Your task to perform on an android device: Search for hotels in San Francisco Image 0: 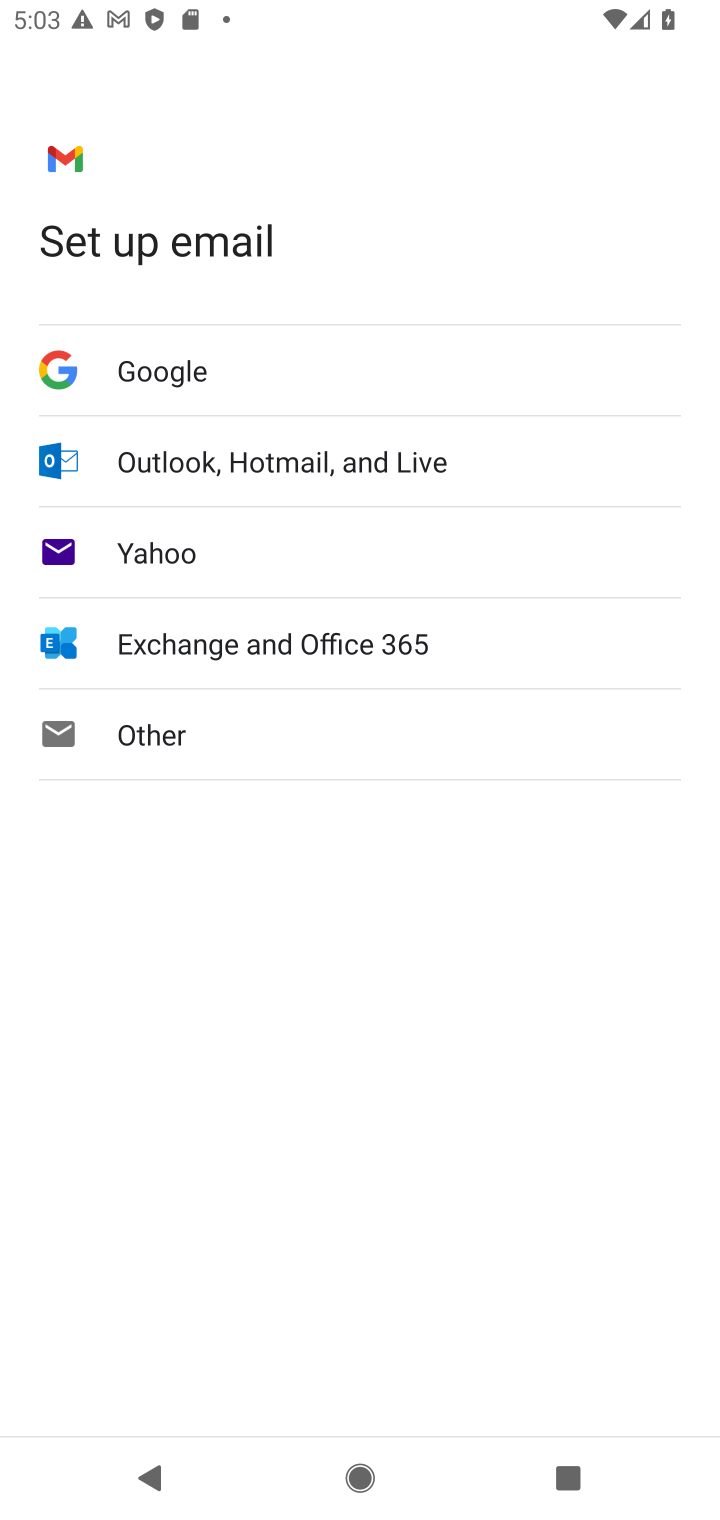
Step 0: press home button
Your task to perform on an android device: Search for hotels in San Francisco Image 1: 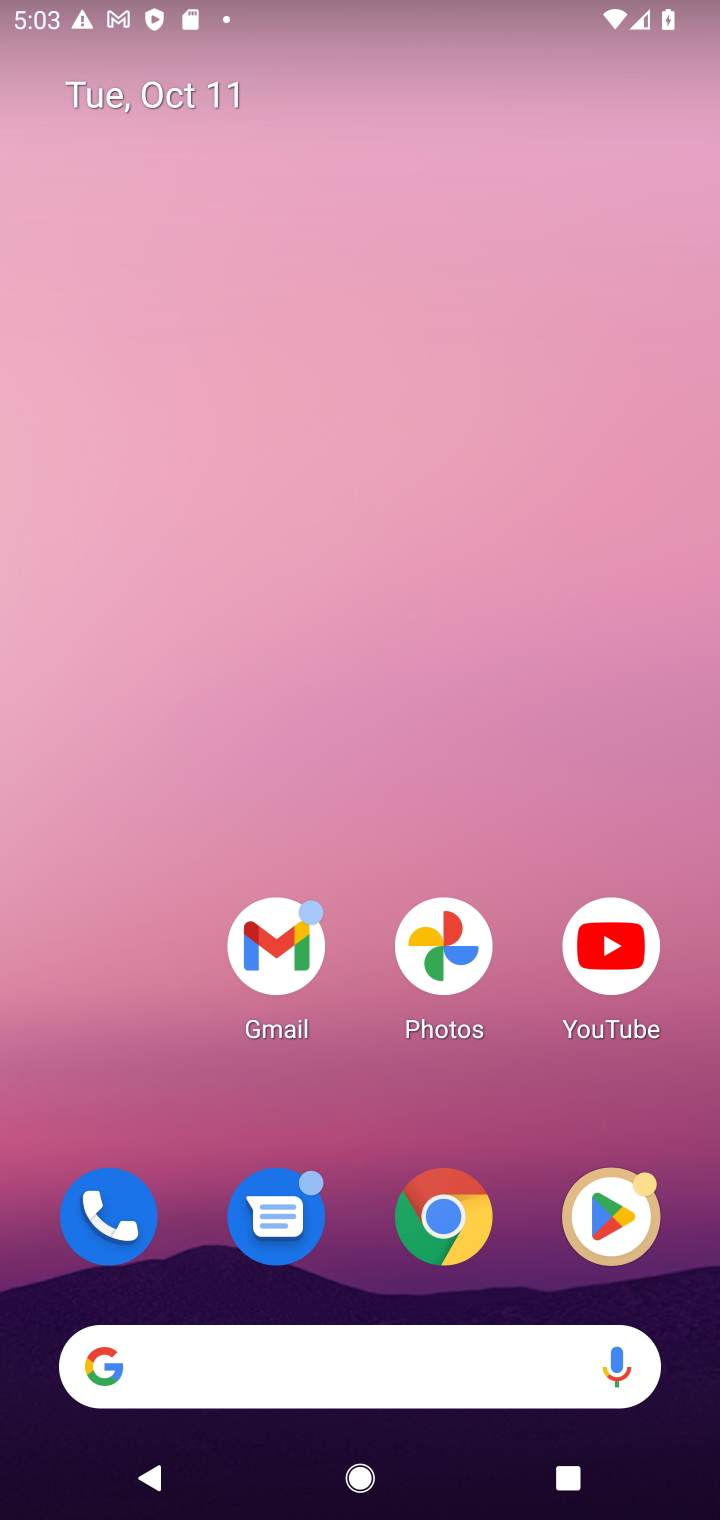
Step 1: click (441, 1214)
Your task to perform on an android device: Search for hotels in San Francisco Image 2: 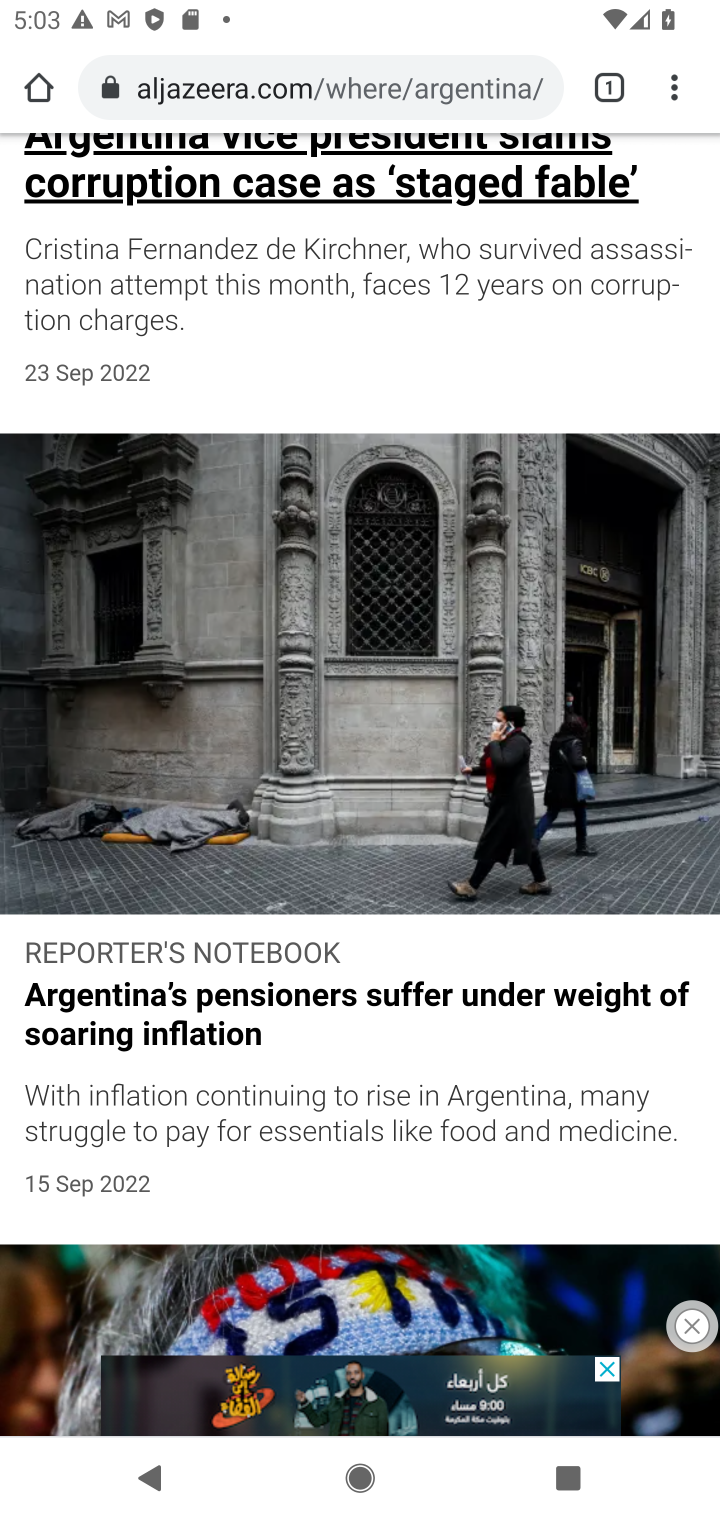
Step 2: click (350, 90)
Your task to perform on an android device: Search for hotels in San Francisco Image 3: 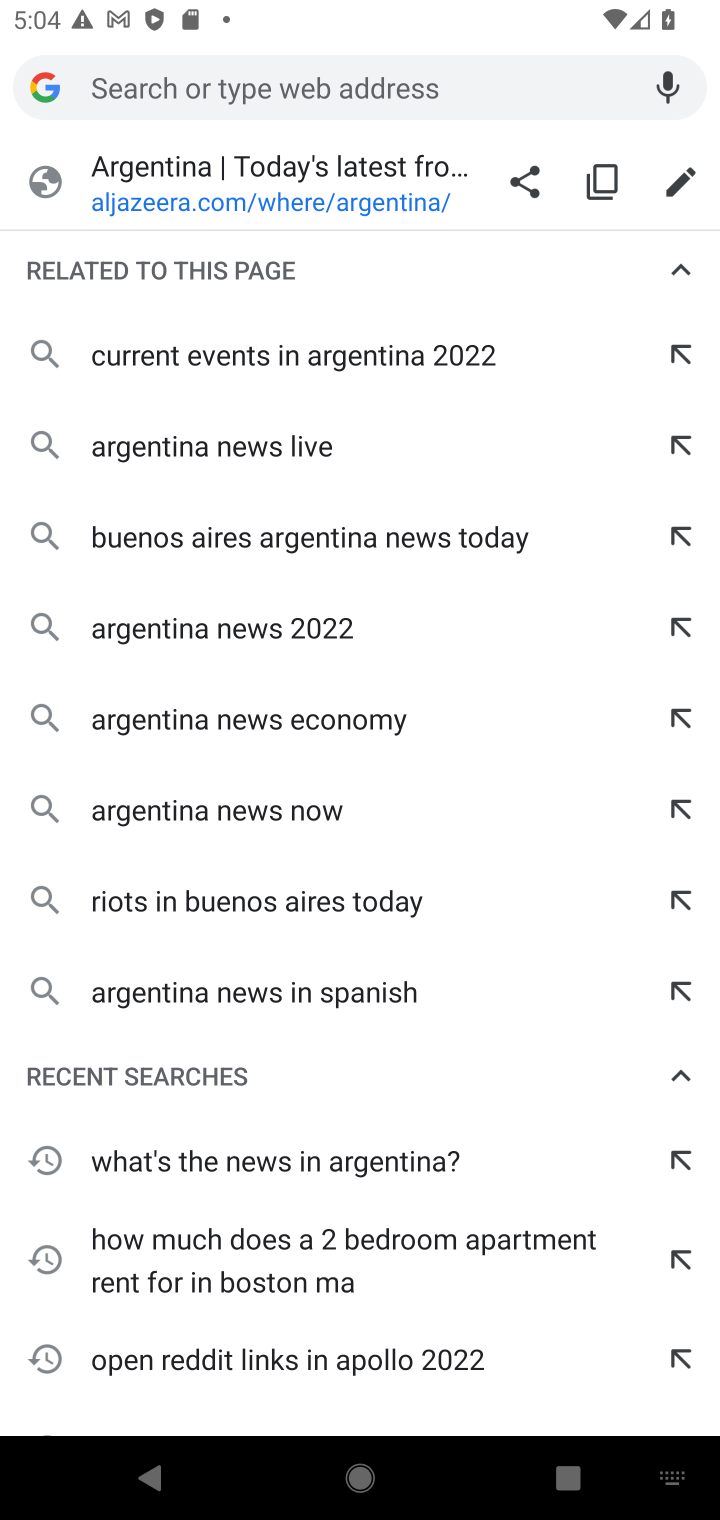
Step 3: type "Hotels in San Francisco"
Your task to perform on an android device: Search for hotels in San Francisco Image 4: 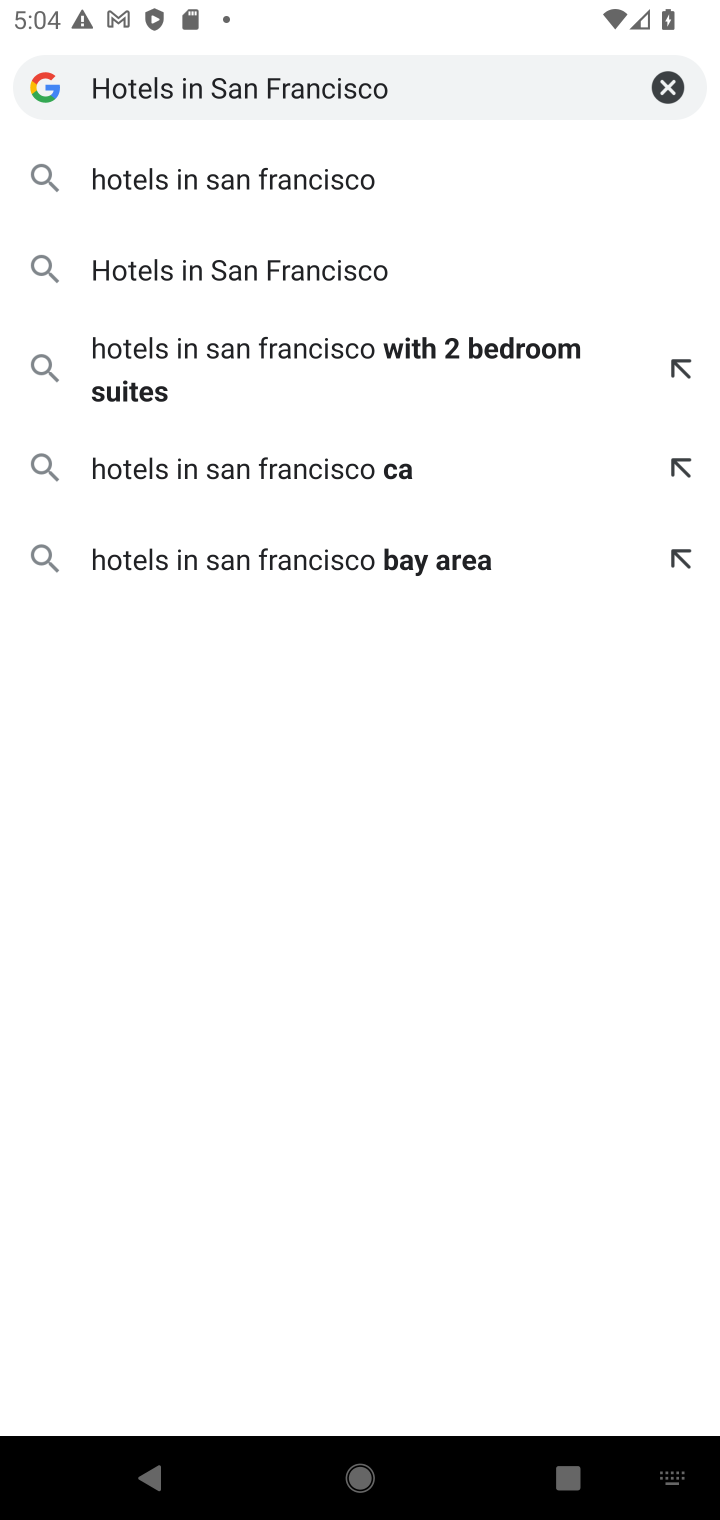
Step 4: click (253, 174)
Your task to perform on an android device: Search for hotels in San Francisco Image 5: 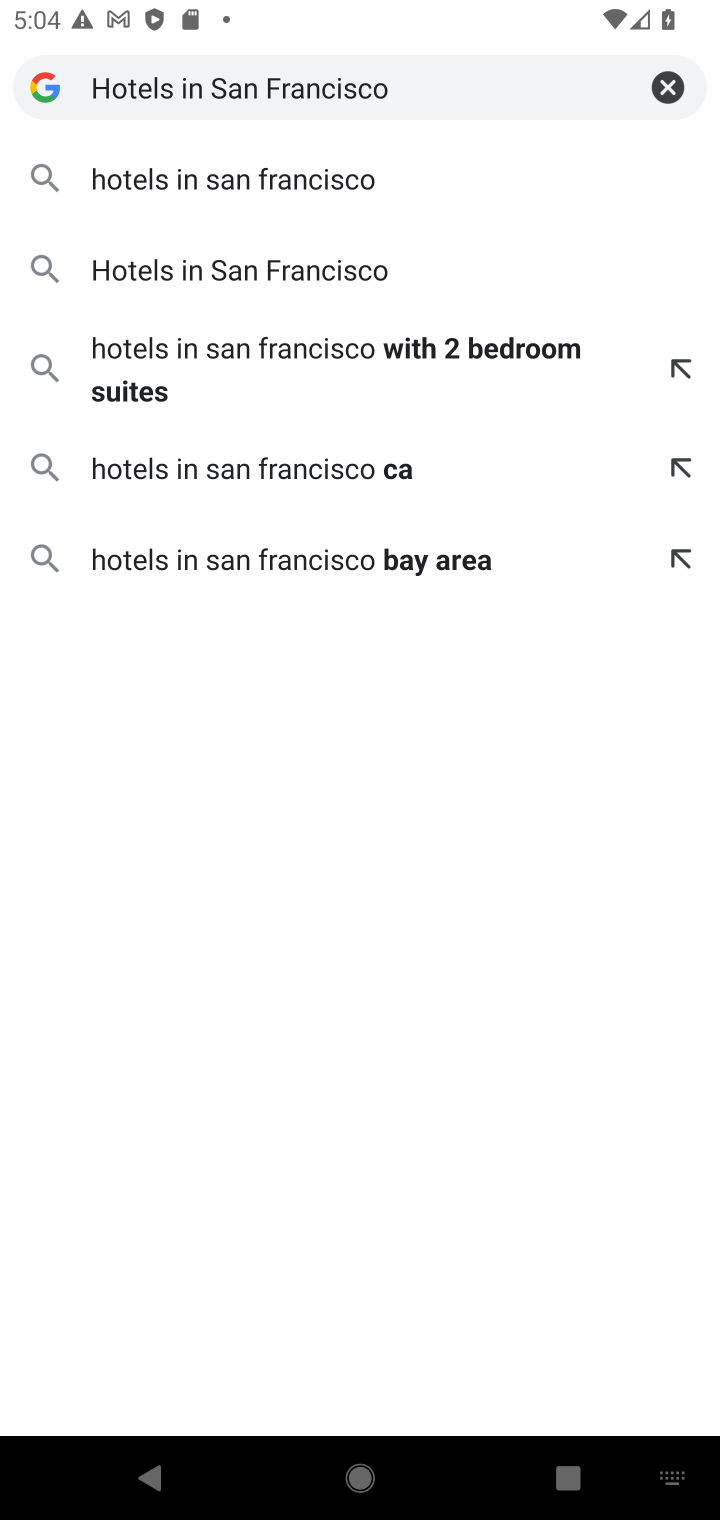
Step 5: click (356, 181)
Your task to perform on an android device: Search for hotels in San Francisco Image 6: 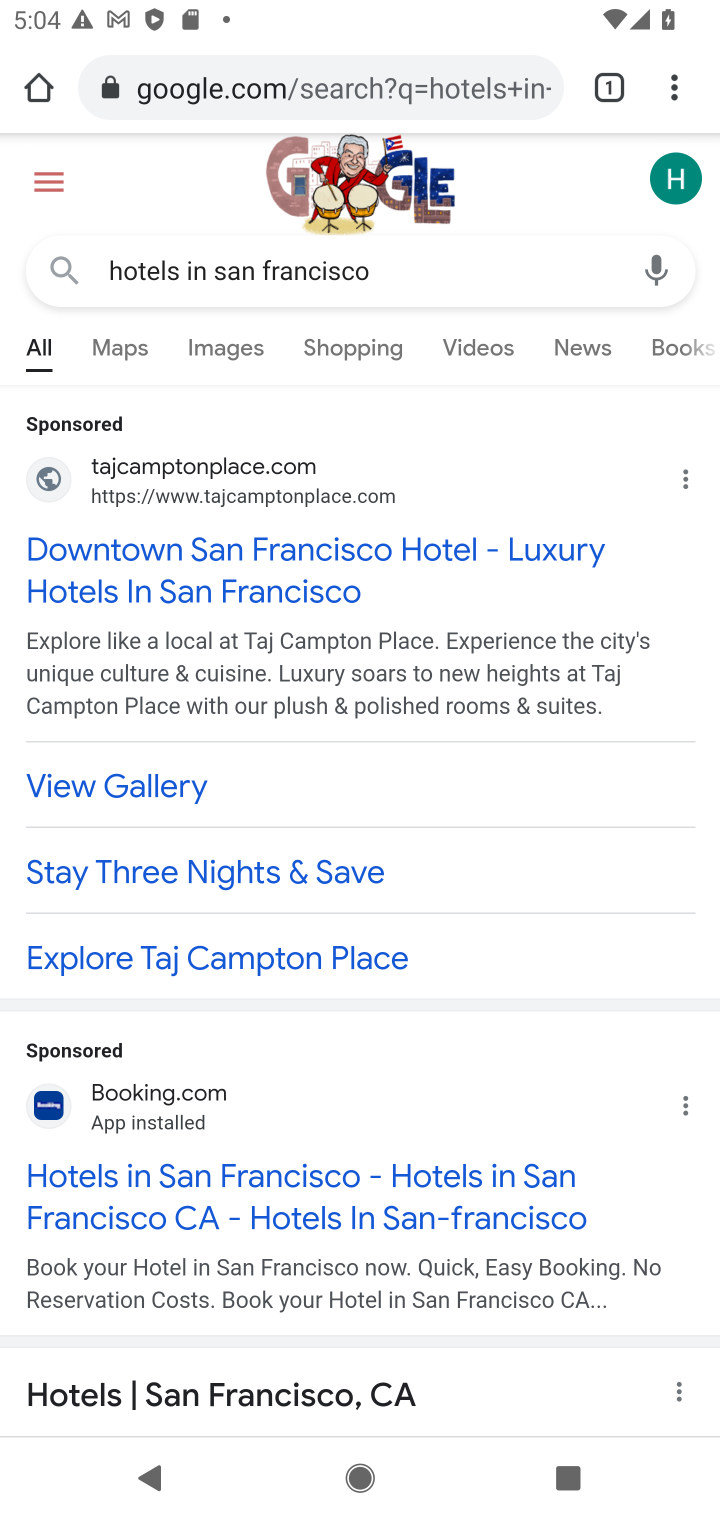
Step 6: drag from (444, 961) to (573, 690)
Your task to perform on an android device: Search for hotels in San Francisco Image 7: 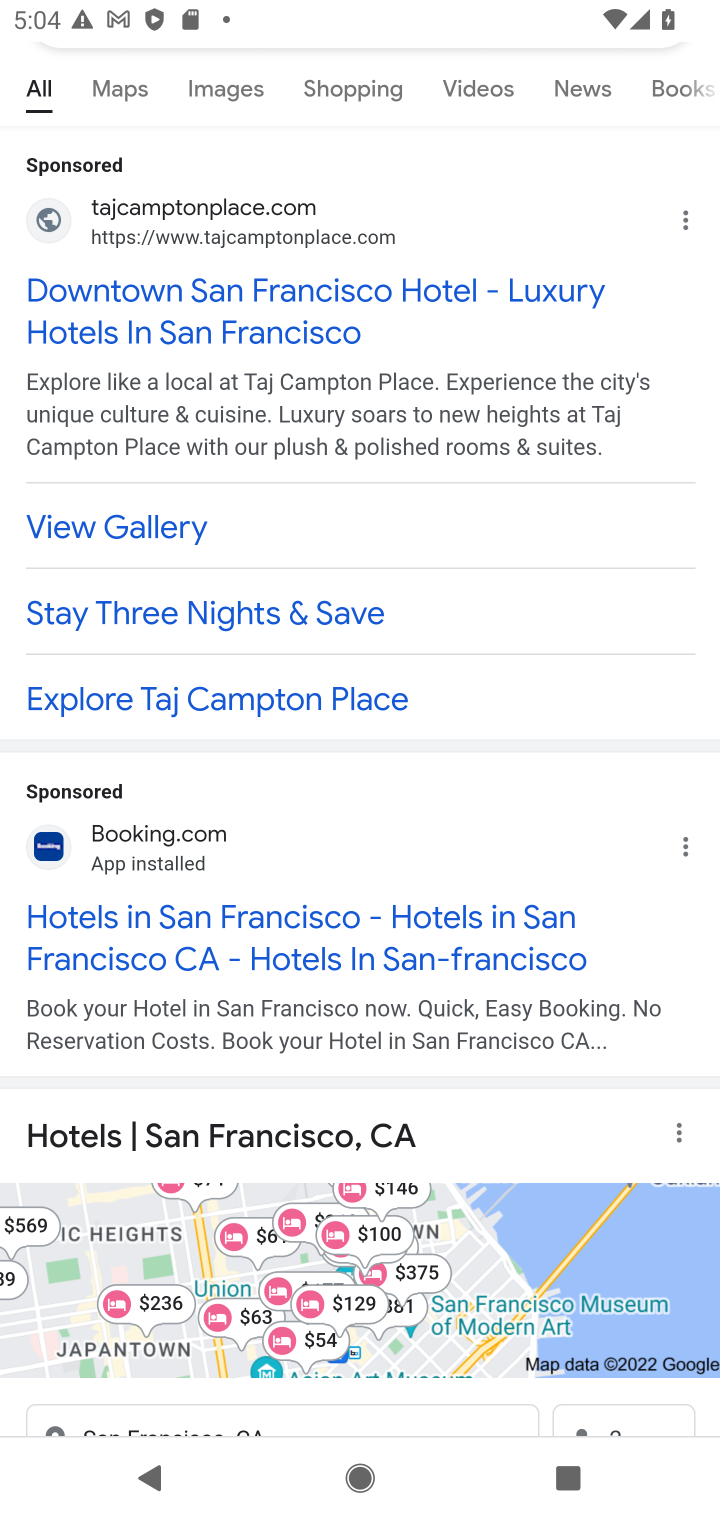
Step 7: drag from (375, 1223) to (383, 626)
Your task to perform on an android device: Search for hotels in San Francisco Image 8: 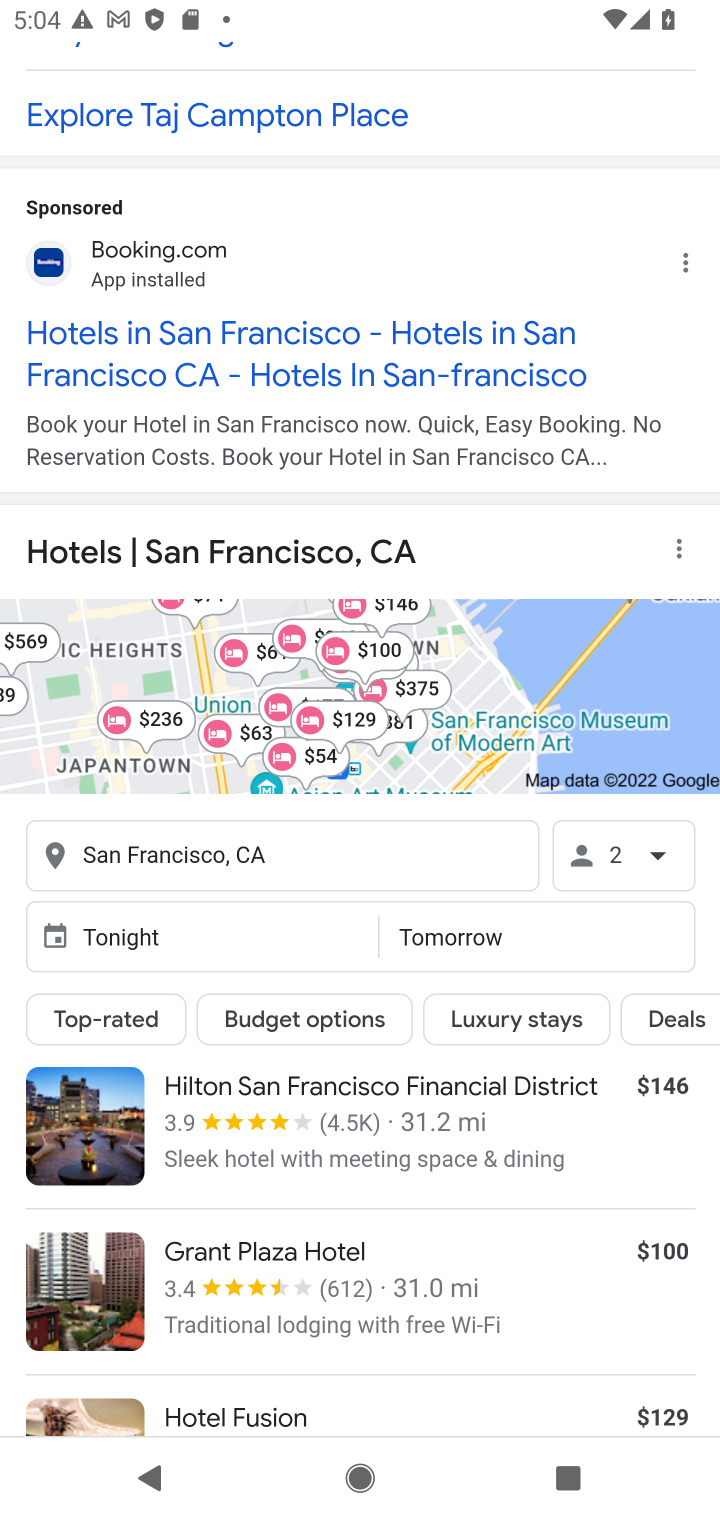
Step 8: drag from (338, 1091) to (540, 619)
Your task to perform on an android device: Search for hotels in San Francisco Image 9: 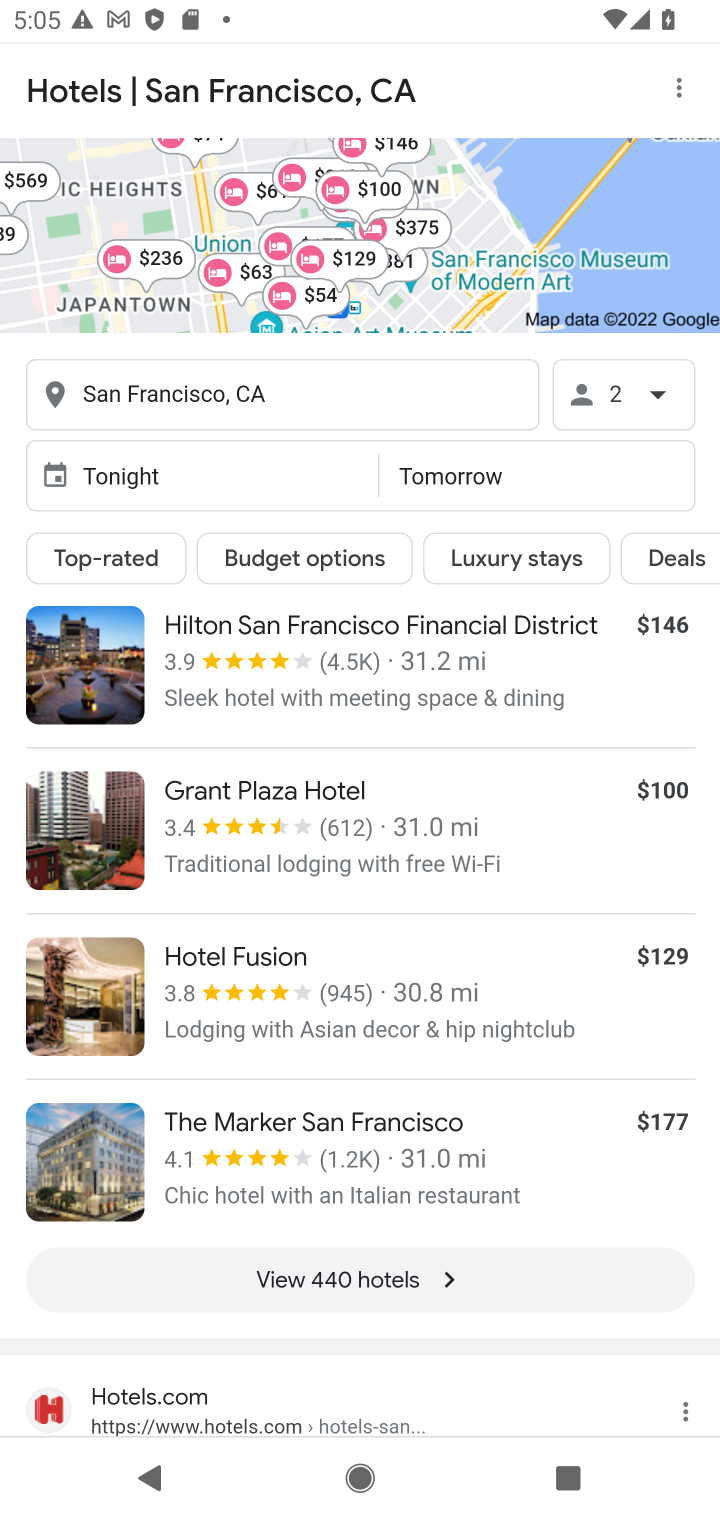
Step 9: click (372, 1277)
Your task to perform on an android device: Search for hotels in San Francisco Image 10: 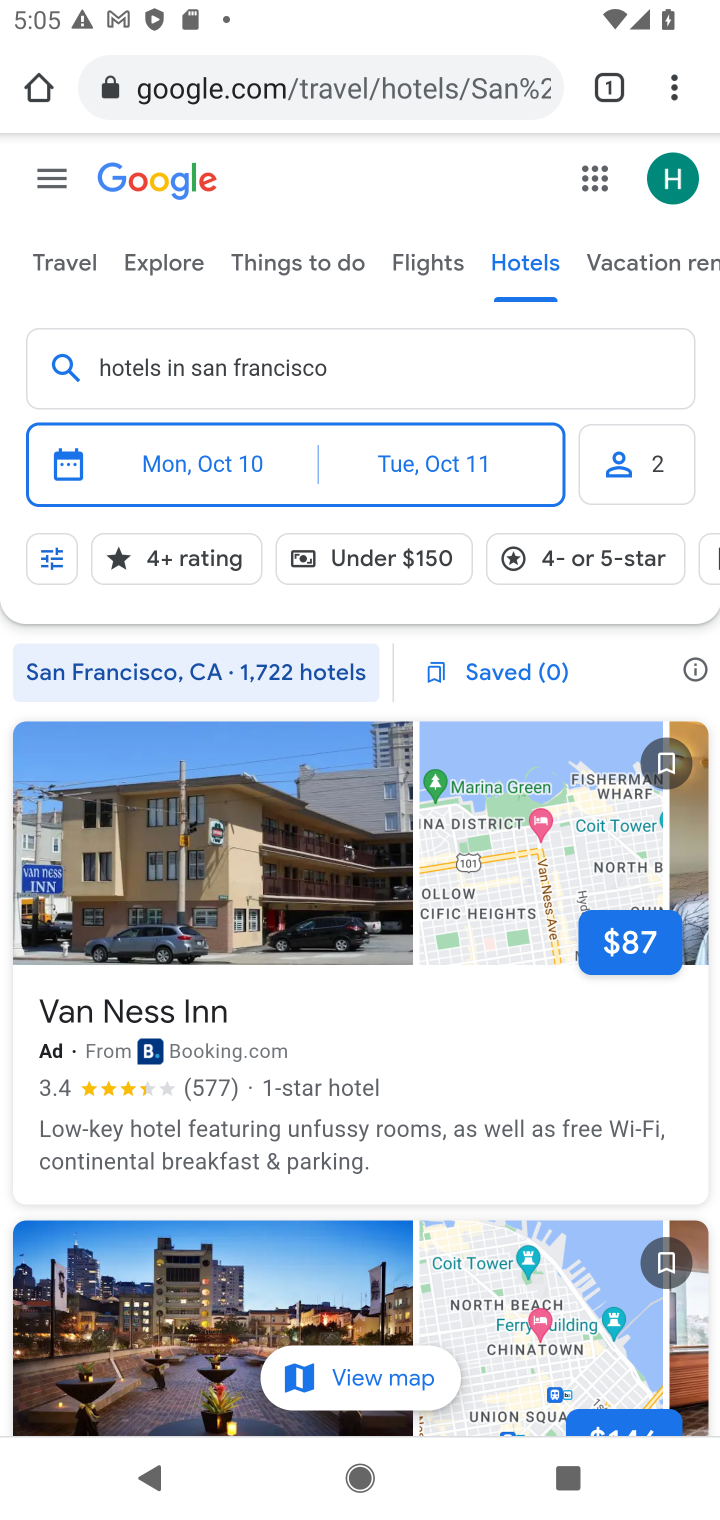
Step 10: task complete